Your task to perform on an android device: toggle airplane mode Image 0: 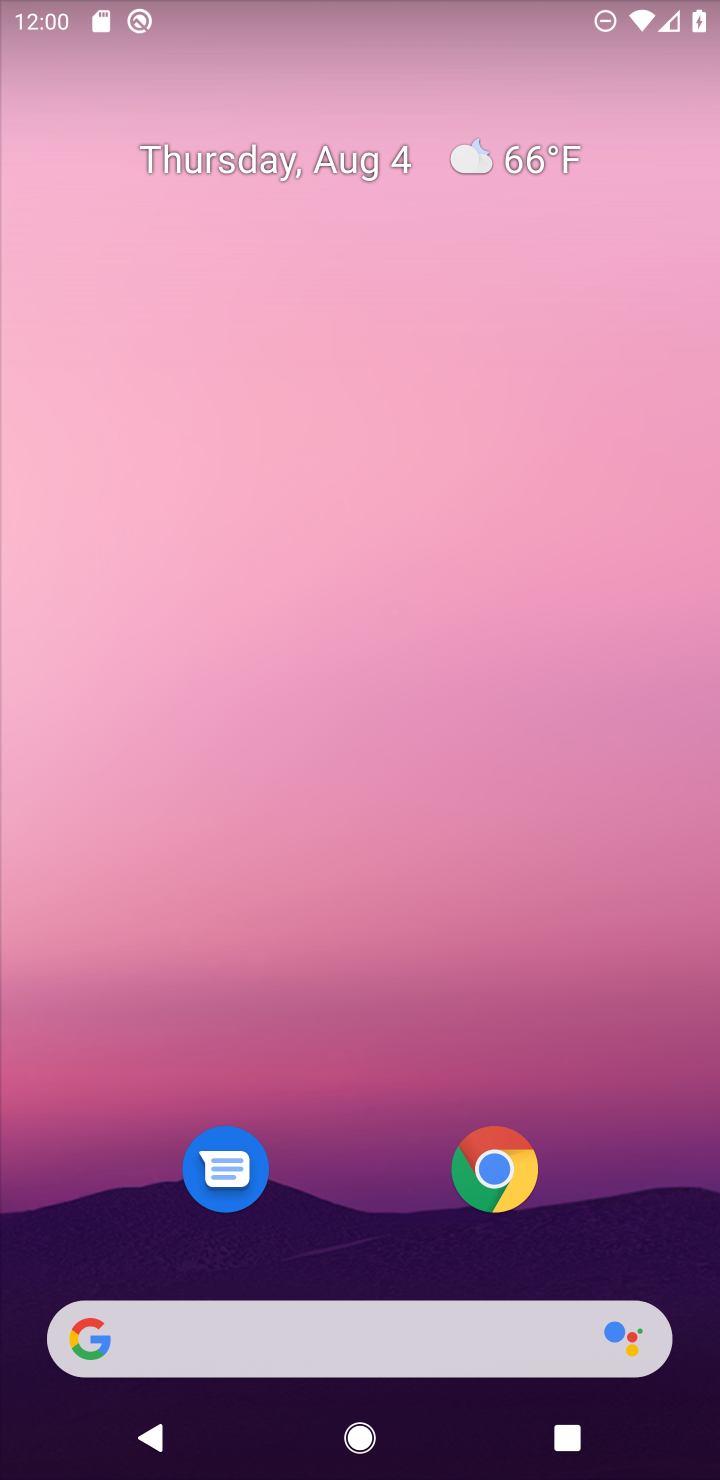
Step 0: drag from (649, 386) to (631, 3)
Your task to perform on an android device: toggle airplane mode Image 1: 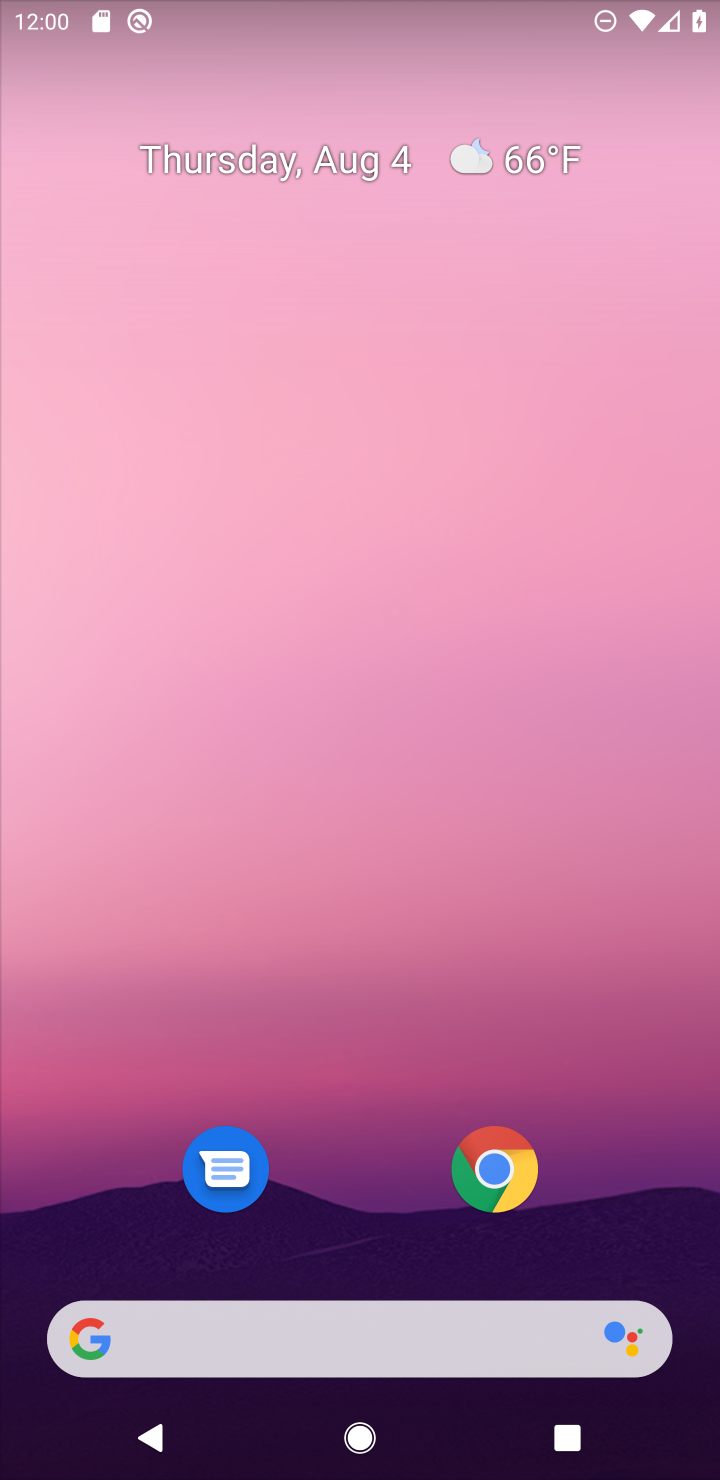
Step 1: drag from (612, 1257) to (558, 28)
Your task to perform on an android device: toggle airplane mode Image 2: 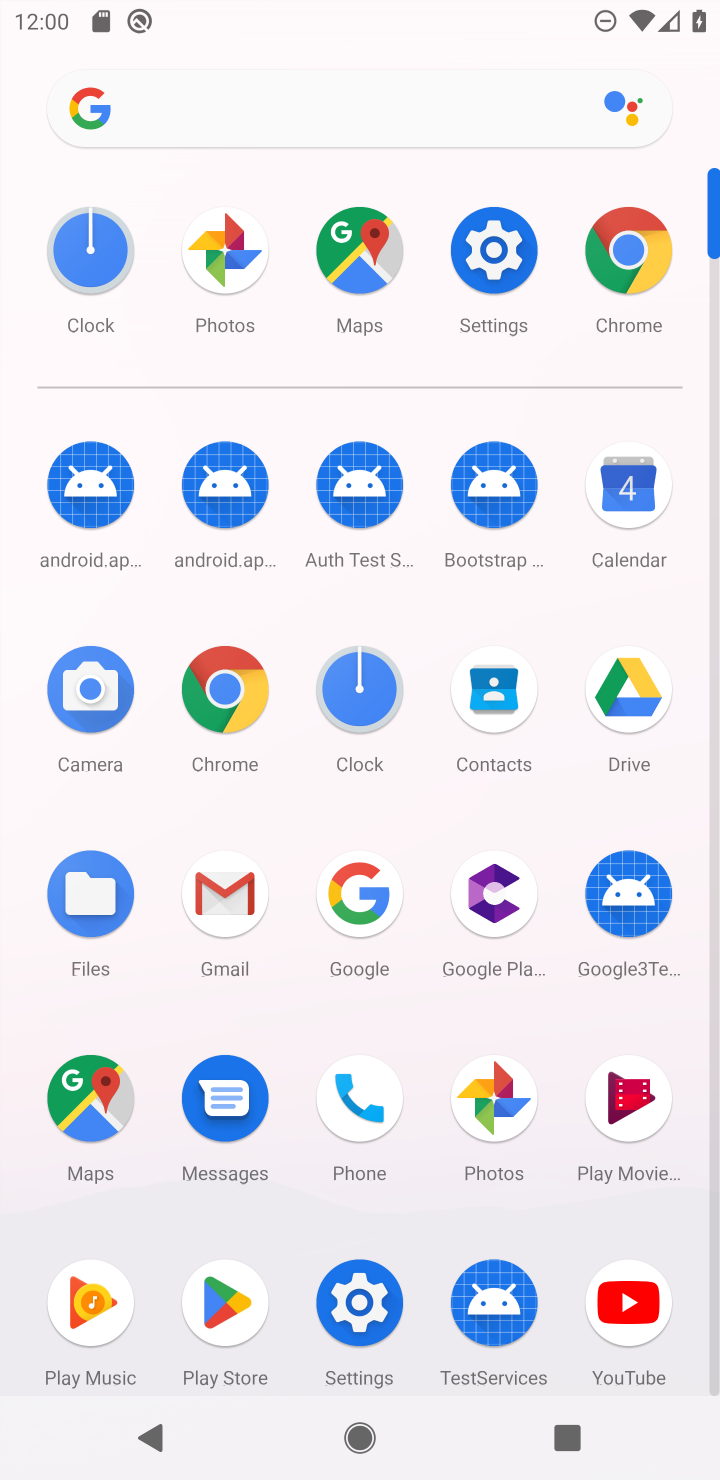
Step 2: click (481, 263)
Your task to perform on an android device: toggle airplane mode Image 3: 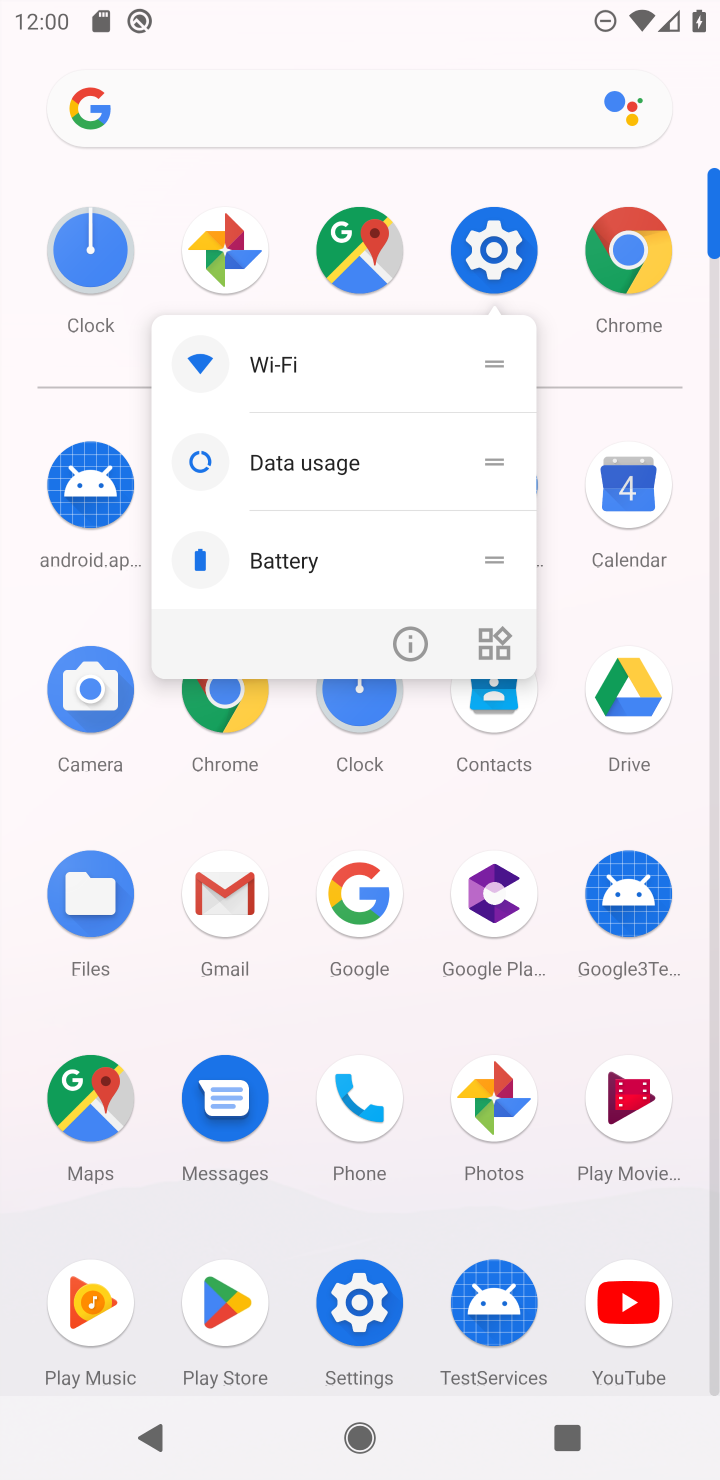
Step 3: click (492, 254)
Your task to perform on an android device: toggle airplane mode Image 4: 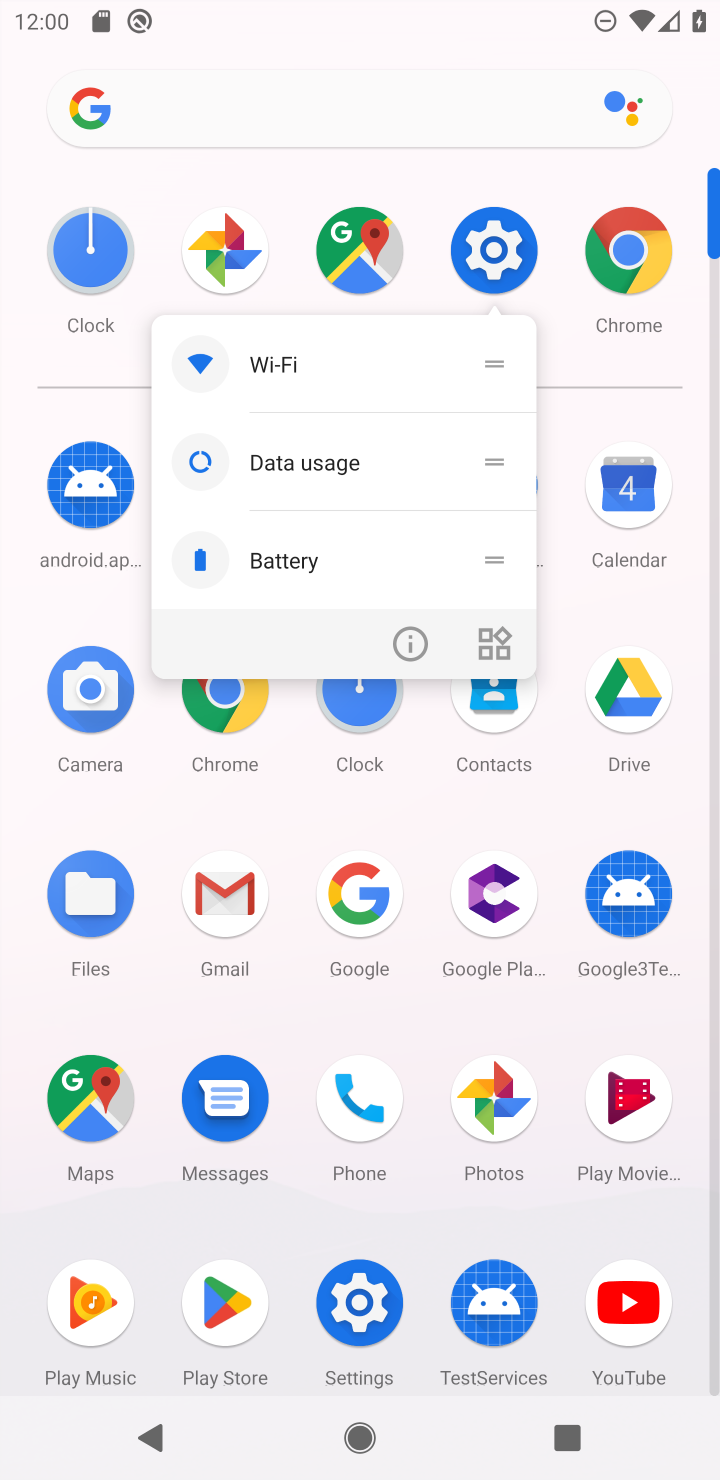
Step 4: click (492, 252)
Your task to perform on an android device: toggle airplane mode Image 5: 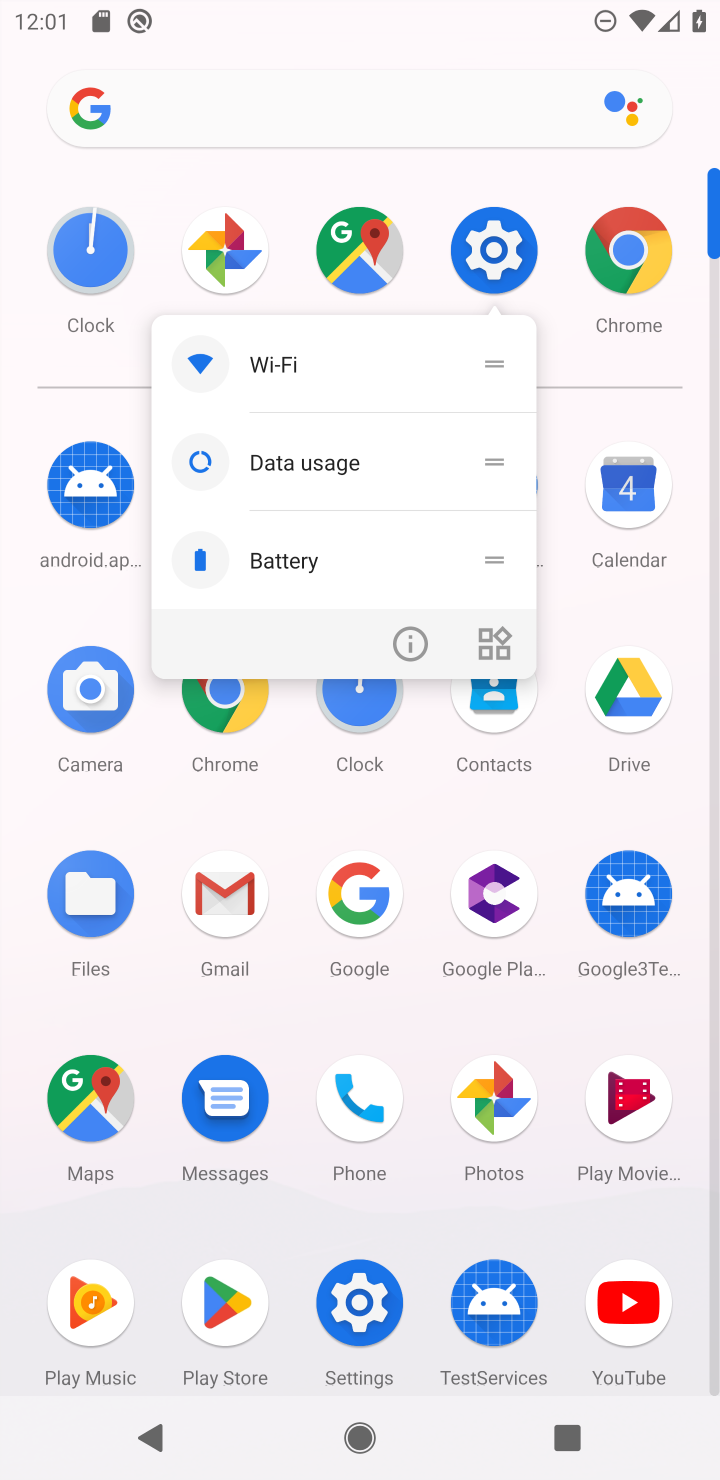
Step 5: click (492, 250)
Your task to perform on an android device: toggle airplane mode Image 6: 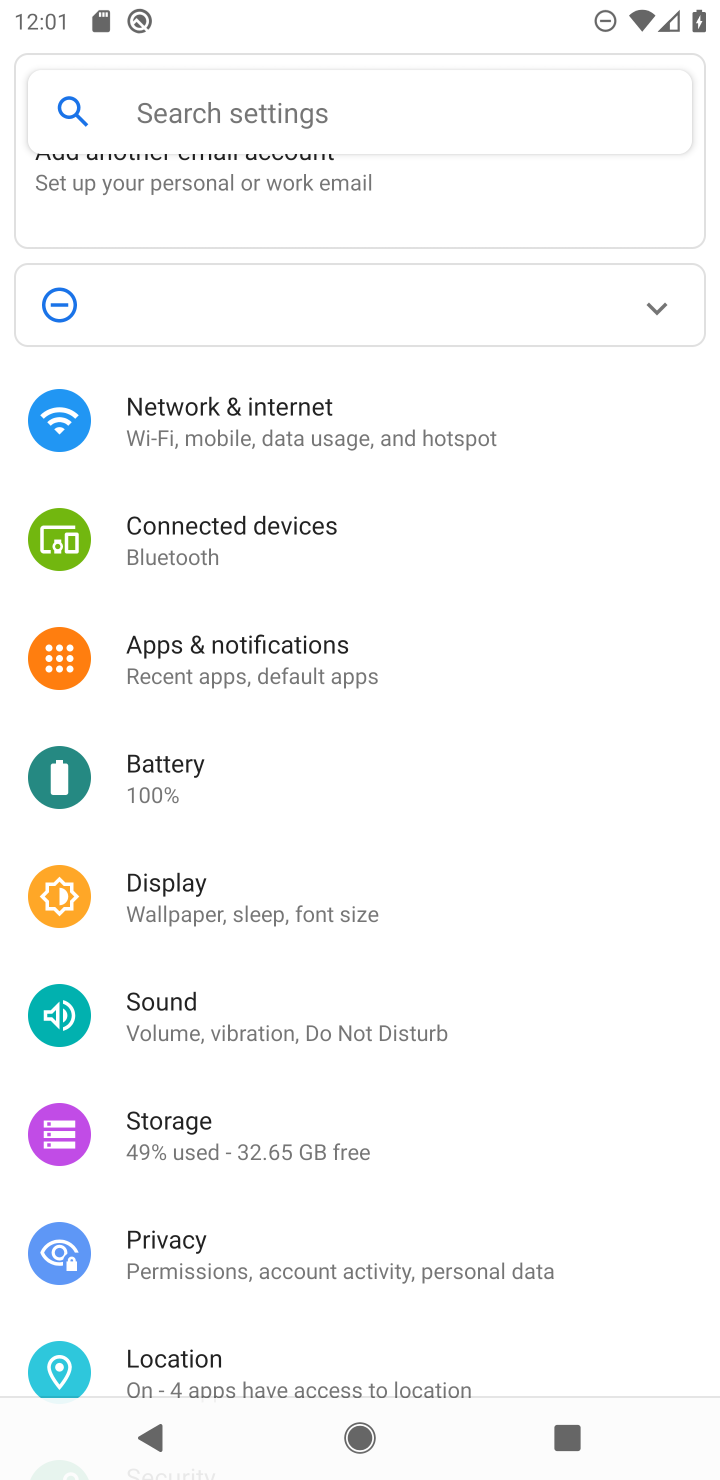
Step 6: click (193, 438)
Your task to perform on an android device: toggle airplane mode Image 7: 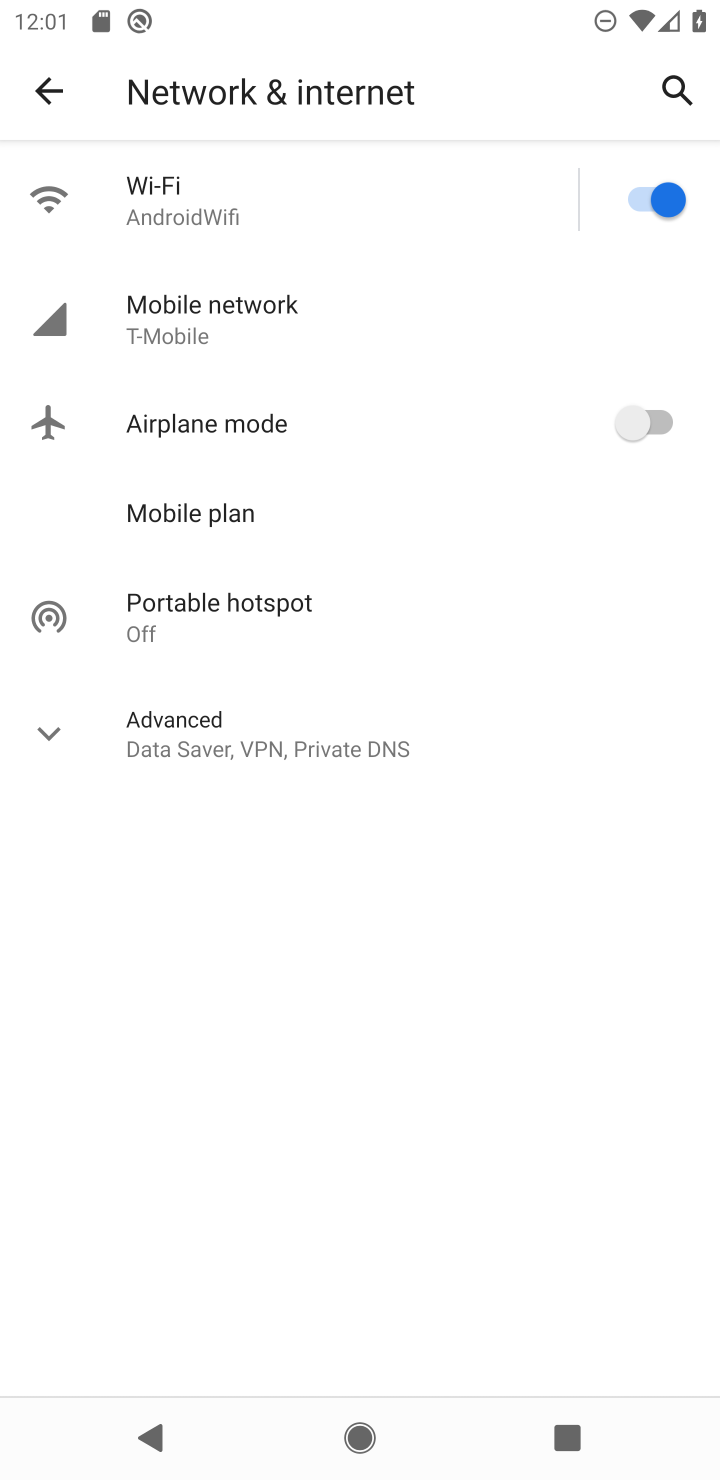
Step 7: click (627, 421)
Your task to perform on an android device: toggle airplane mode Image 8: 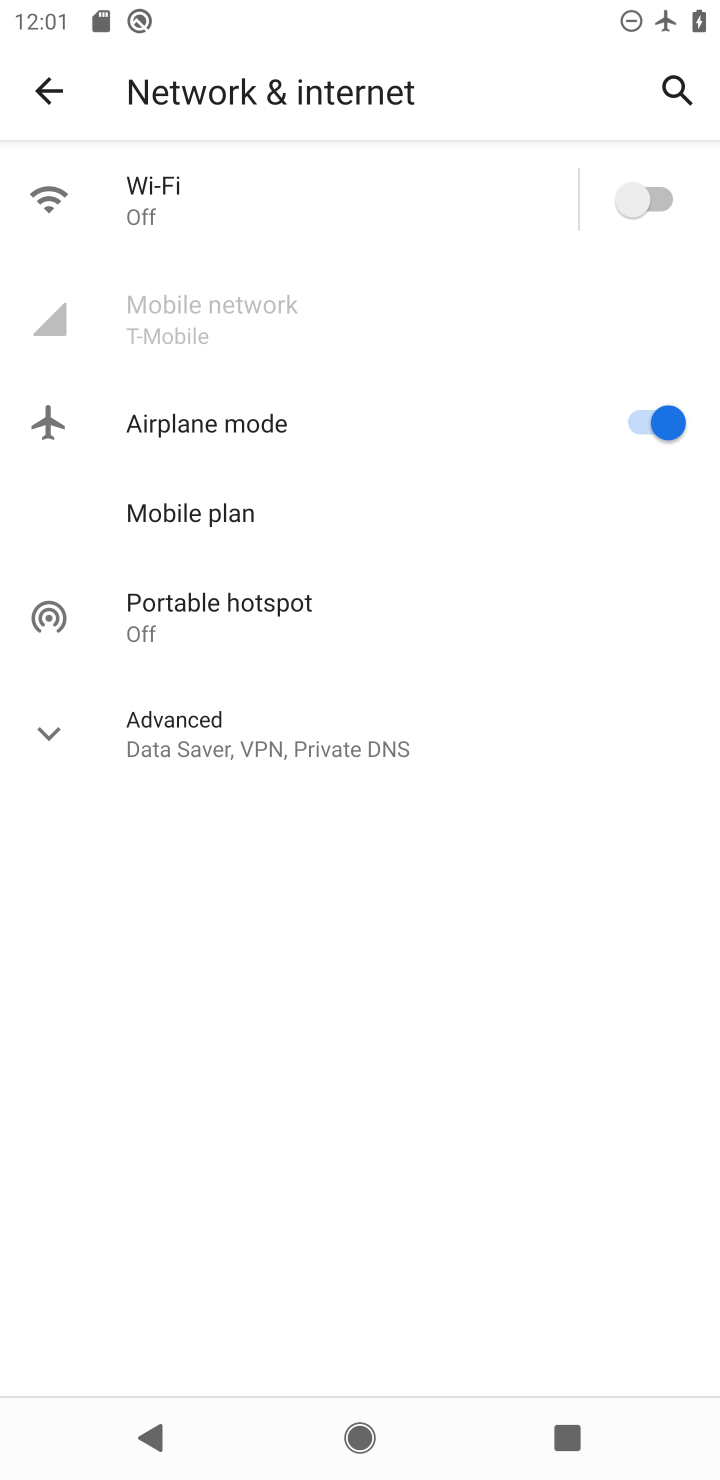
Step 8: task complete